Your task to perform on an android device: turn smart compose on in the gmail app Image 0: 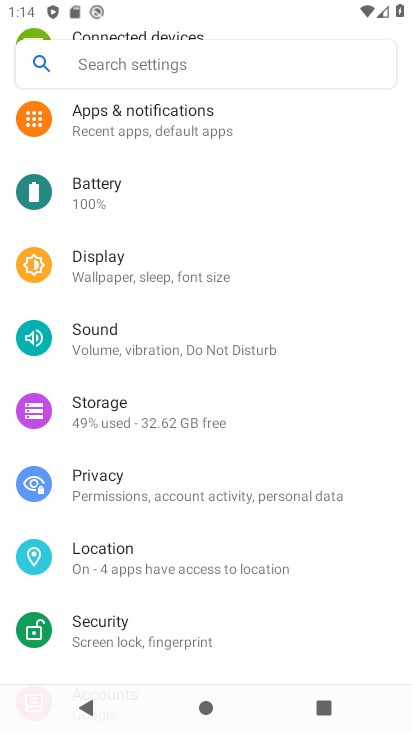
Step 0: press home button
Your task to perform on an android device: turn smart compose on in the gmail app Image 1: 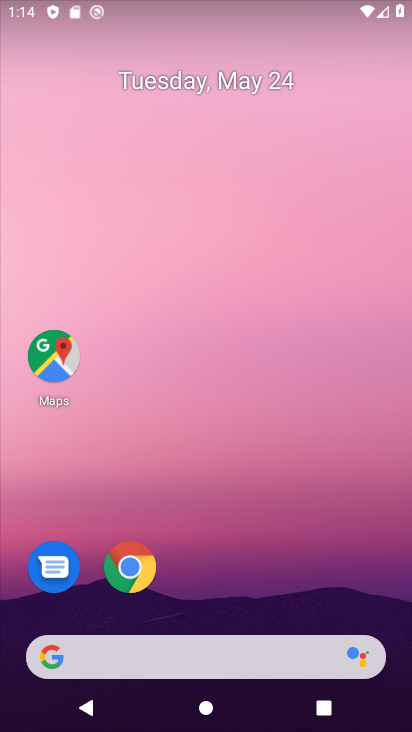
Step 1: drag from (202, 590) to (297, 13)
Your task to perform on an android device: turn smart compose on in the gmail app Image 2: 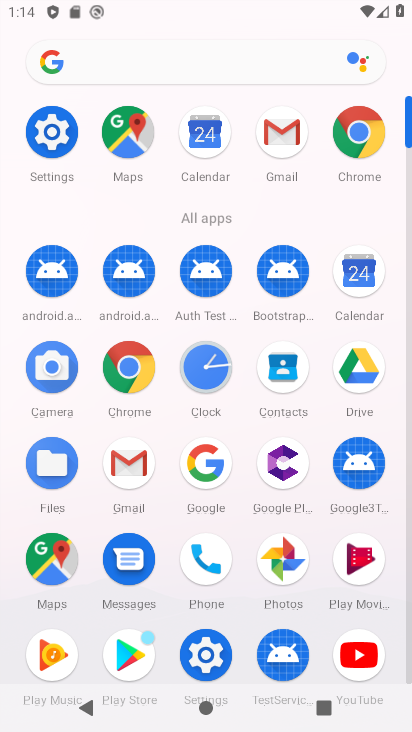
Step 2: click (127, 465)
Your task to perform on an android device: turn smart compose on in the gmail app Image 3: 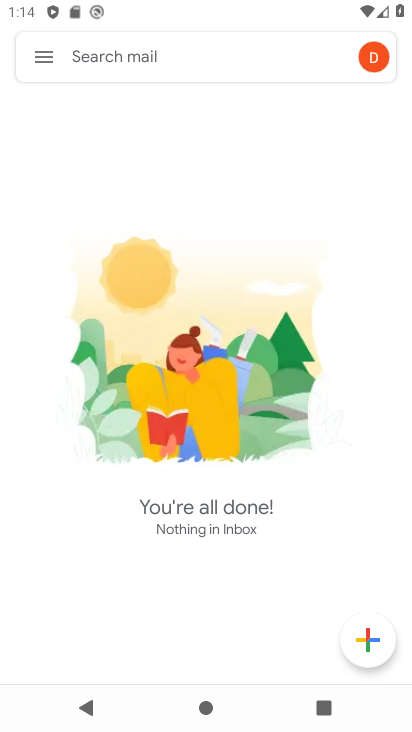
Step 3: click (45, 65)
Your task to perform on an android device: turn smart compose on in the gmail app Image 4: 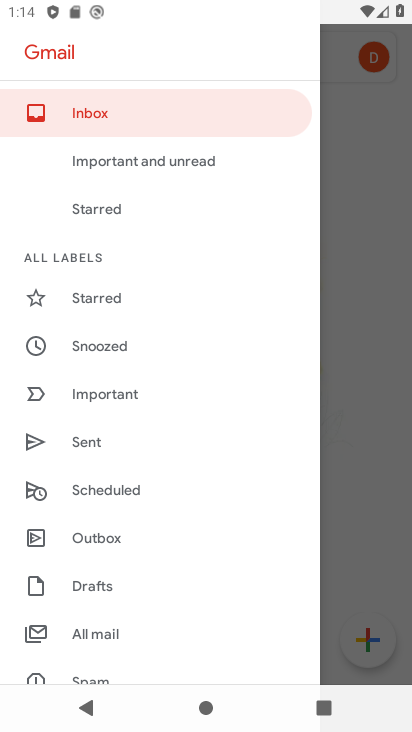
Step 4: drag from (111, 593) to (202, 185)
Your task to perform on an android device: turn smart compose on in the gmail app Image 5: 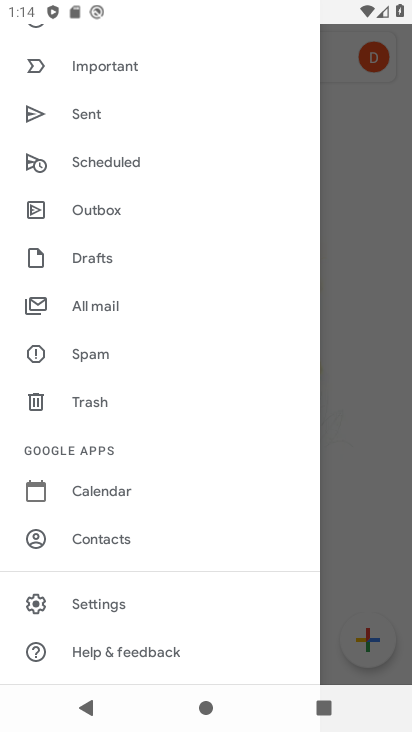
Step 5: click (121, 610)
Your task to perform on an android device: turn smart compose on in the gmail app Image 6: 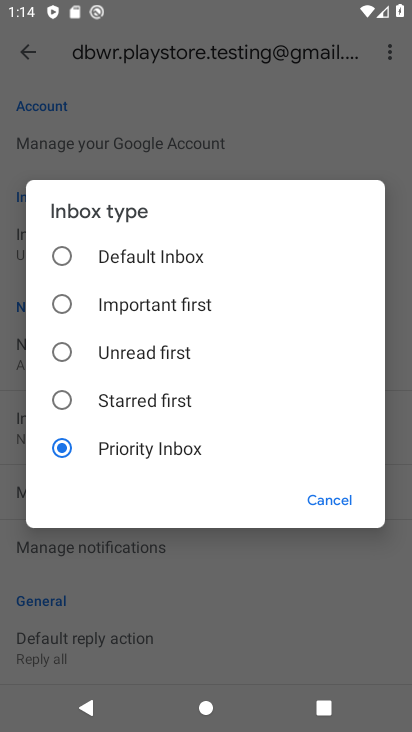
Step 6: click (337, 488)
Your task to perform on an android device: turn smart compose on in the gmail app Image 7: 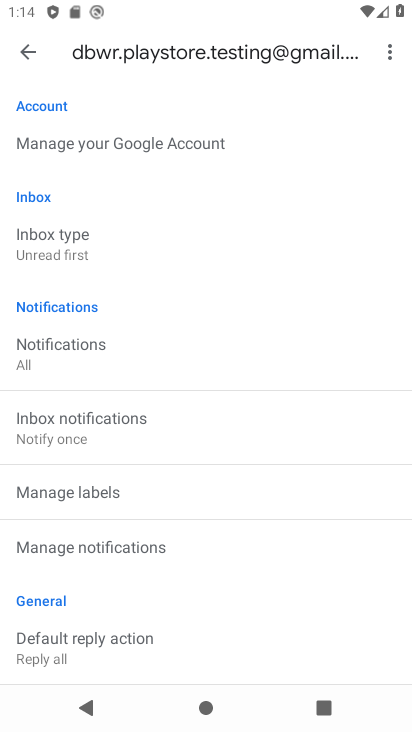
Step 7: task complete